Your task to perform on an android device: Open Maps and search for coffee Image 0: 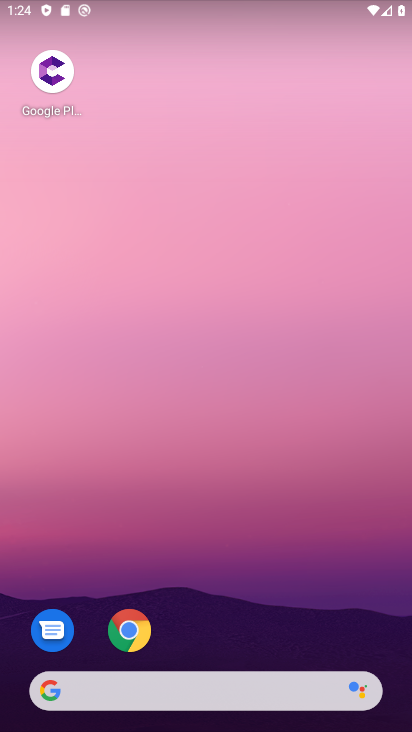
Step 0: drag from (203, 548) to (219, 23)
Your task to perform on an android device: Open Maps and search for coffee Image 1: 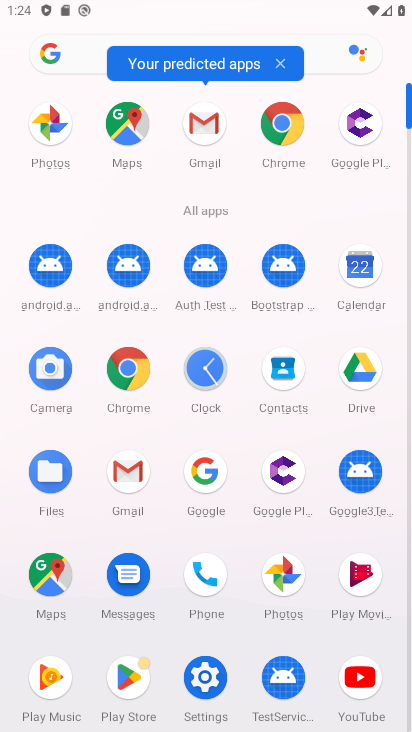
Step 1: click (130, 159)
Your task to perform on an android device: Open Maps and search for coffee Image 2: 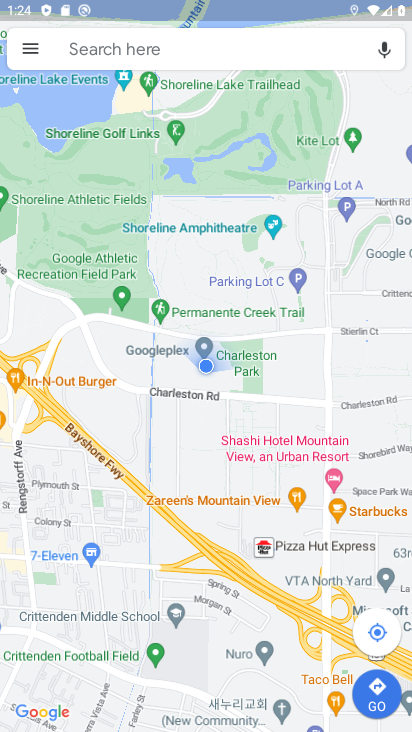
Step 2: click (145, 36)
Your task to perform on an android device: Open Maps and search for coffee Image 3: 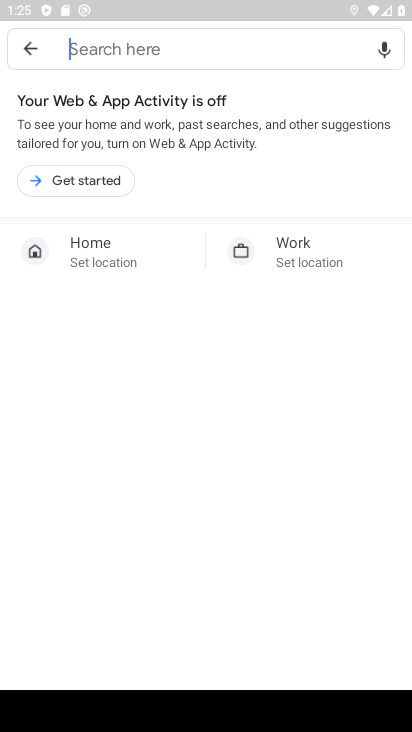
Step 3: type "coffee"
Your task to perform on an android device: Open Maps and search for coffee Image 4: 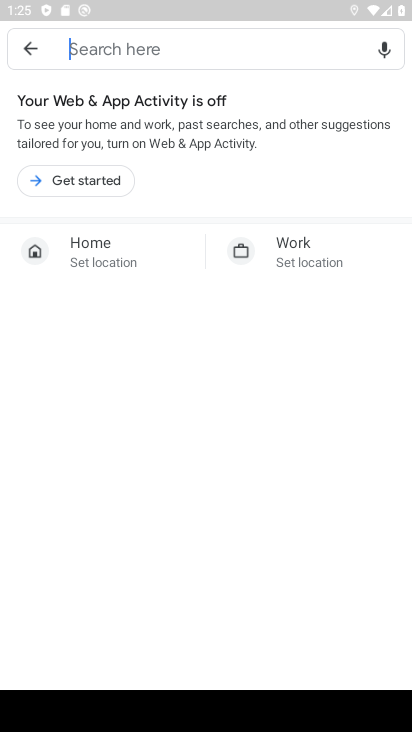
Step 4: click (24, 42)
Your task to perform on an android device: Open Maps and search for coffee Image 5: 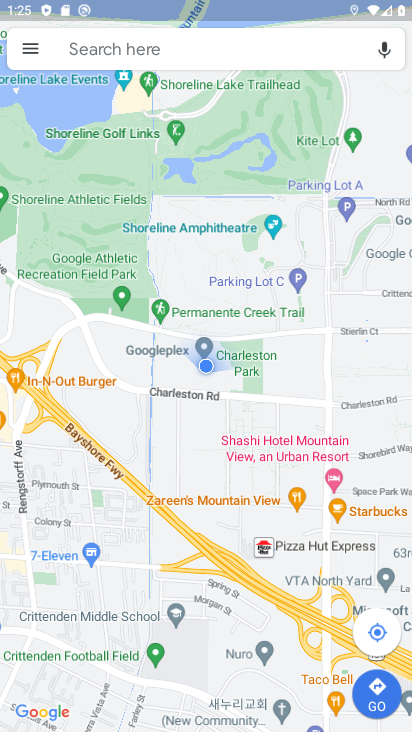
Step 5: click (190, 49)
Your task to perform on an android device: Open Maps and search for coffee Image 6: 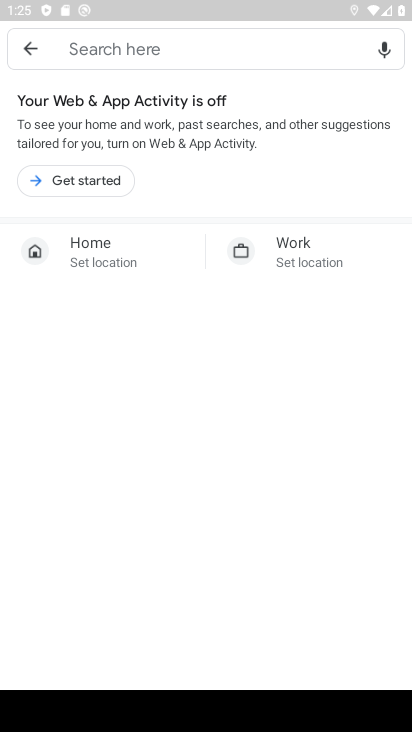
Step 6: type "coffee"
Your task to perform on an android device: Open Maps and search for coffee Image 7: 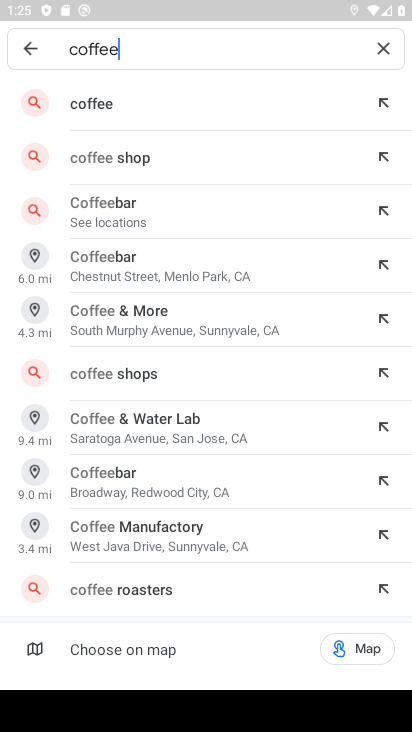
Step 7: click (101, 107)
Your task to perform on an android device: Open Maps and search for coffee Image 8: 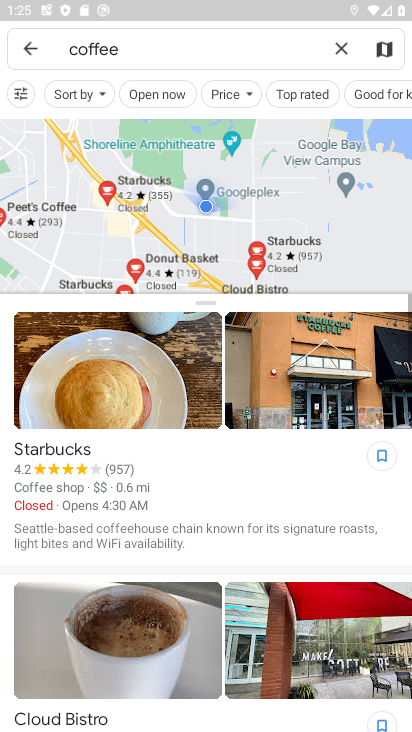
Step 8: task complete